Your task to perform on an android device: open app "DoorDash - Dasher" Image 0: 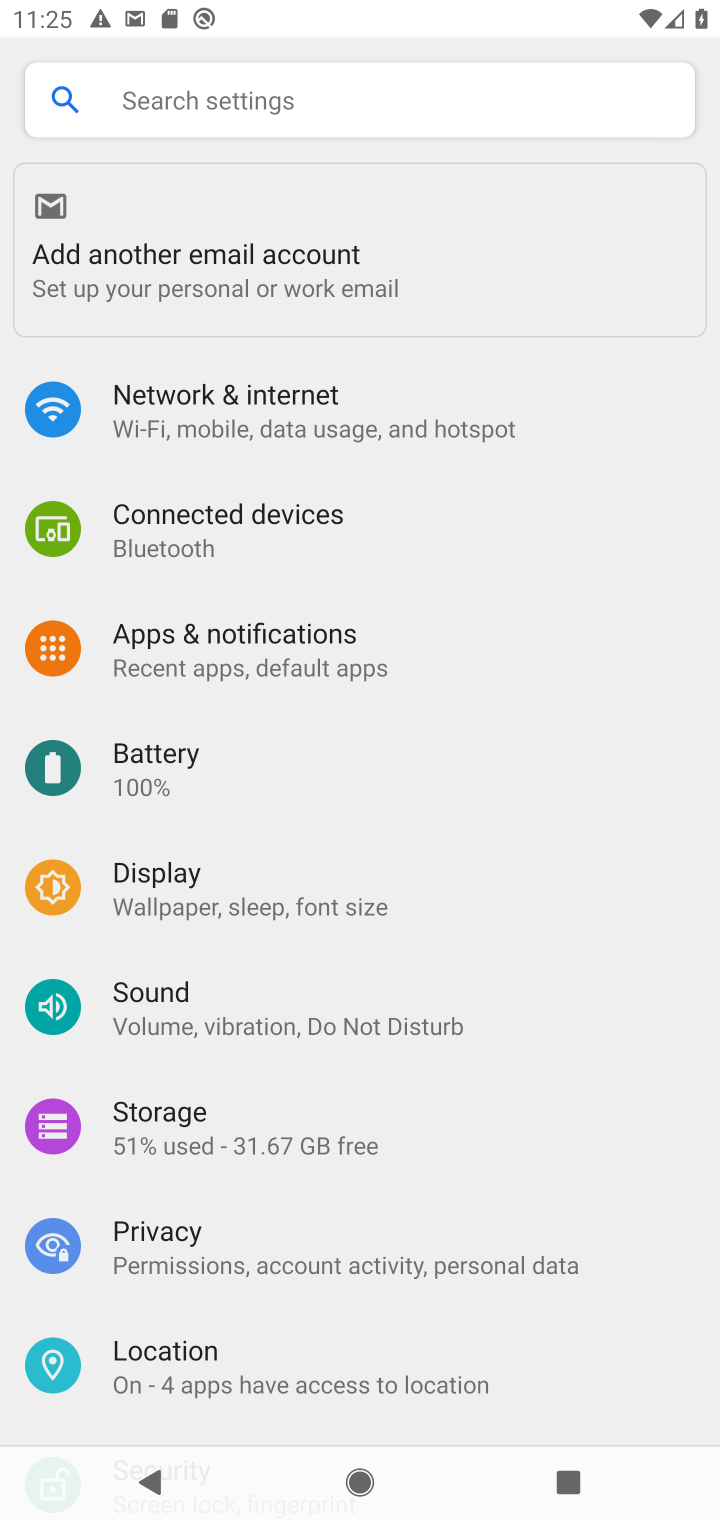
Step 0: press home button
Your task to perform on an android device: open app "DoorDash - Dasher" Image 1: 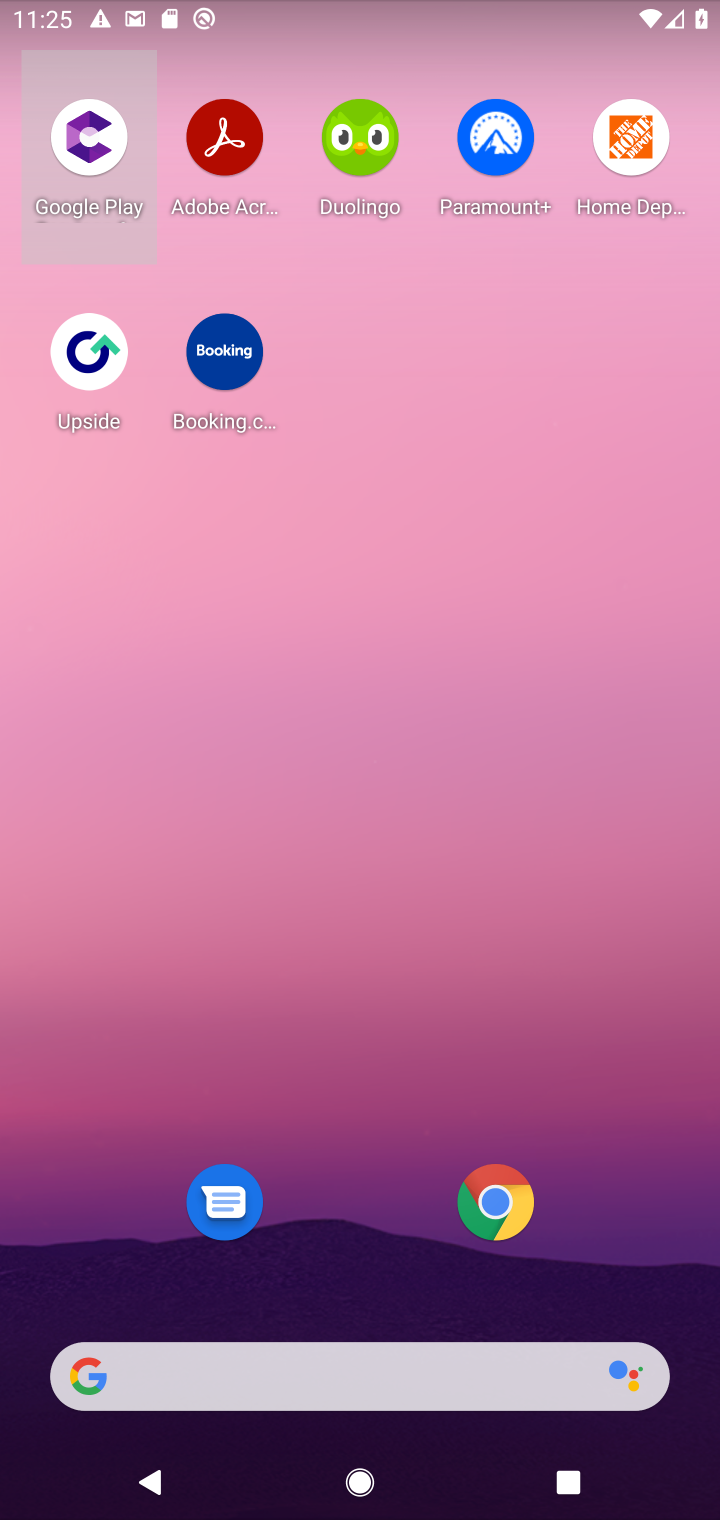
Step 1: drag from (372, 1296) to (354, 69)
Your task to perform on an android device: open app "DoorDash - Dasher" Image 2: 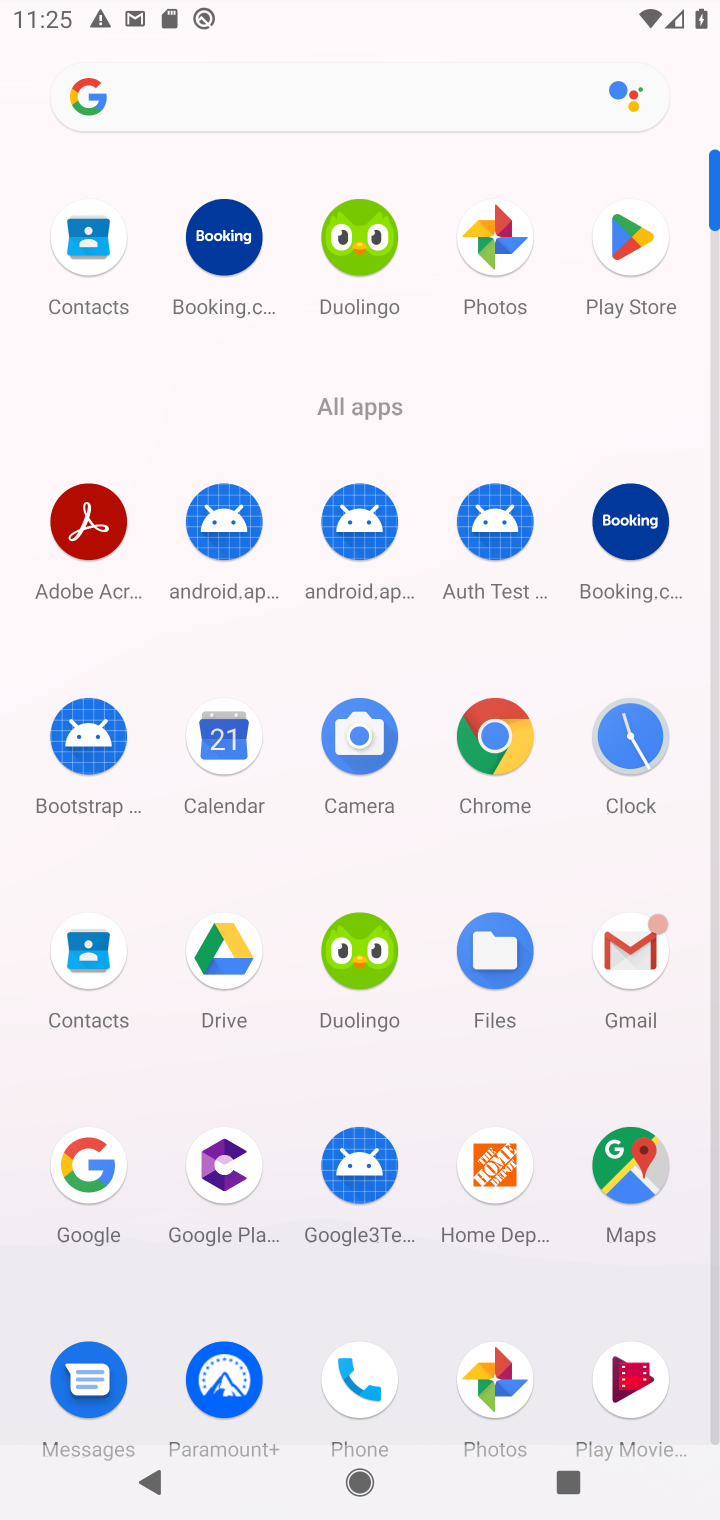
Step 2: click (622, 232)
Your task to perform on an android device: open app "DoorDash - Dasher" Image 3: 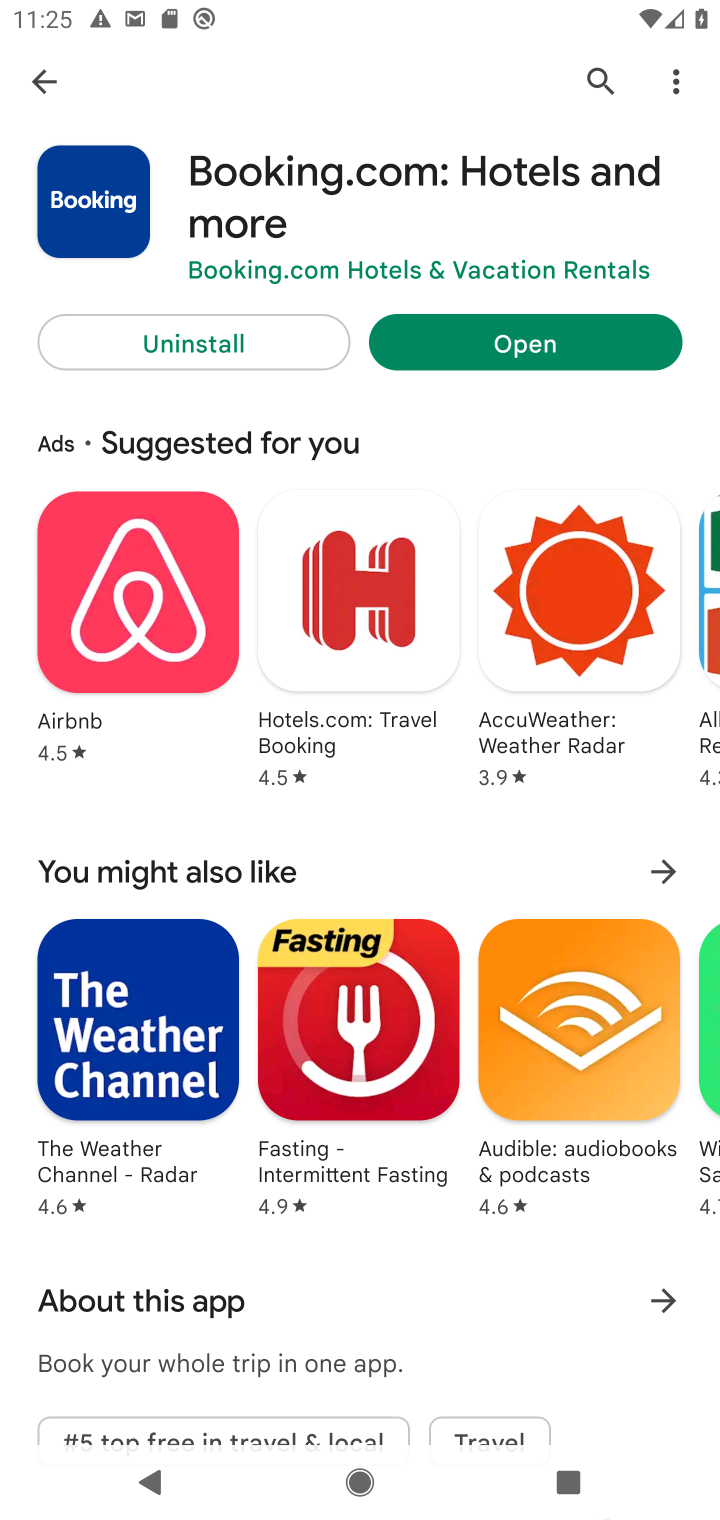
Step 3: click (592, 78)
Your task to perform on an android device: open app "DoorDash - Dasher" Image 4: 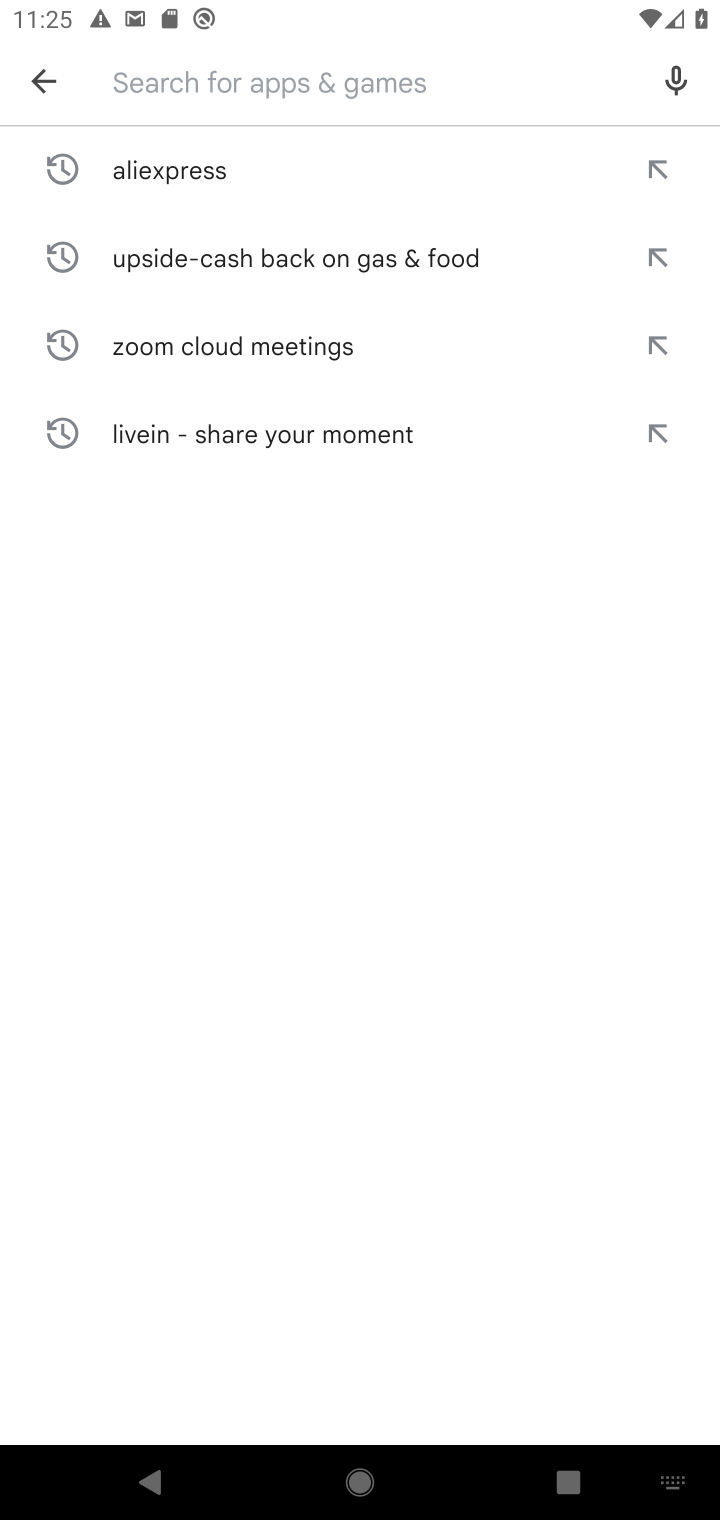
Step 4: type "DoorDash - Dasher"
Your task to perform on an android device: open app "DoorDash - Dasher" Image 5: 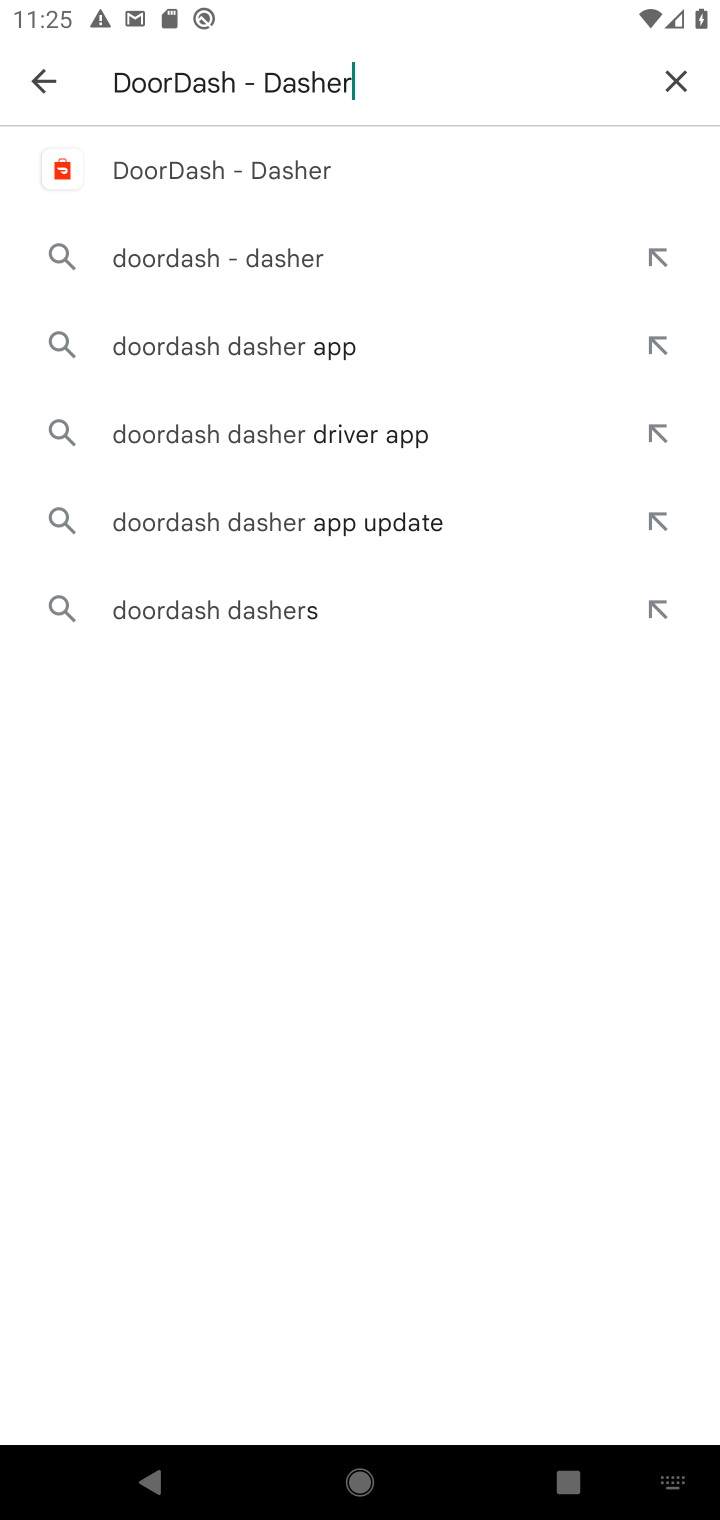
Step 5: click (210, 166)
Your task to perform on an android device: open app "DoorDash - Dasher" Image 6: 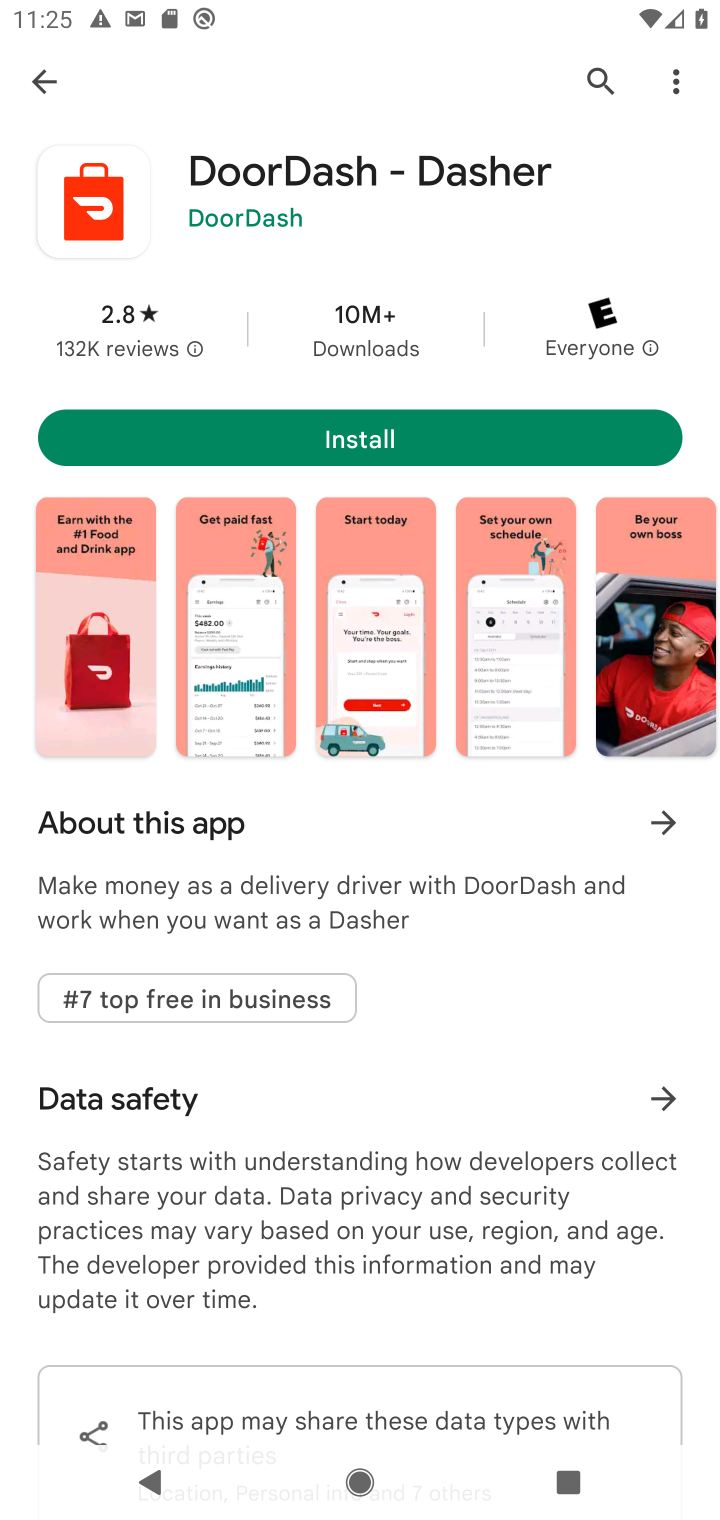
Step 6: task complete